Your task to perform on an android device: open a bookmark in the chrome app Image 0: 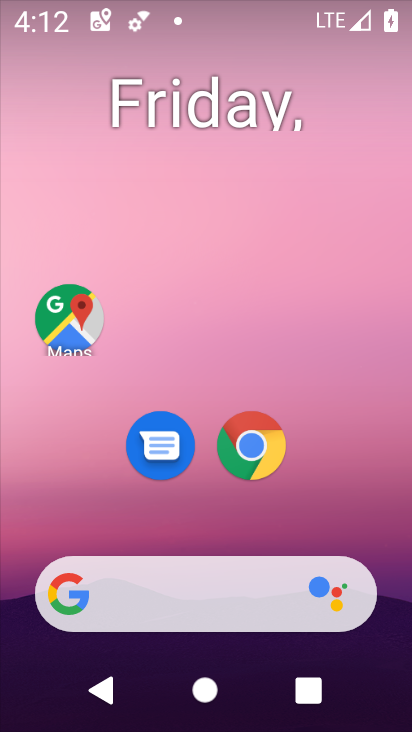
Step 0: drag from (402, 592) to (295, 191)
Your task to perform on an android device: open a bookmark in the chrome app Image 1: 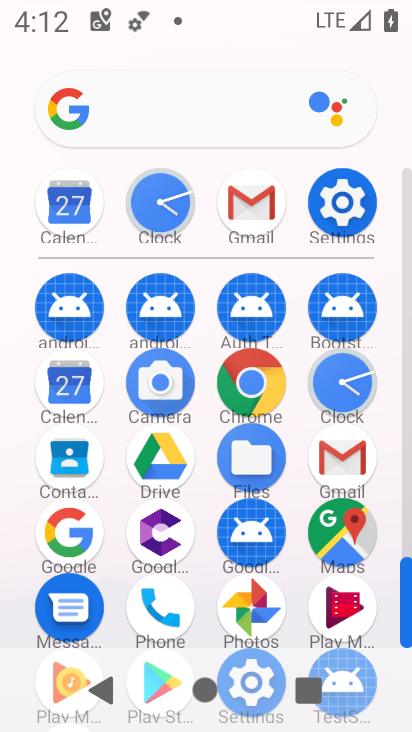
Step 1: click (228, 381)
Your task to perform on an android device: open a bookmark in the chrome app Image 2: 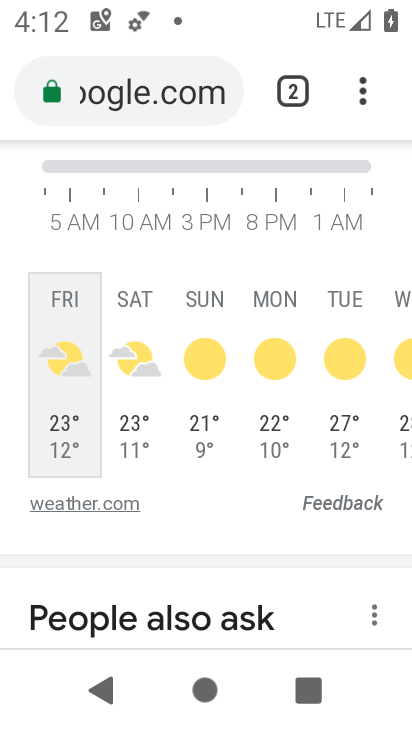
Step 2: click (361, 85)
Your task to perform on an android device: open a bookmark in the chrome app Image 3: 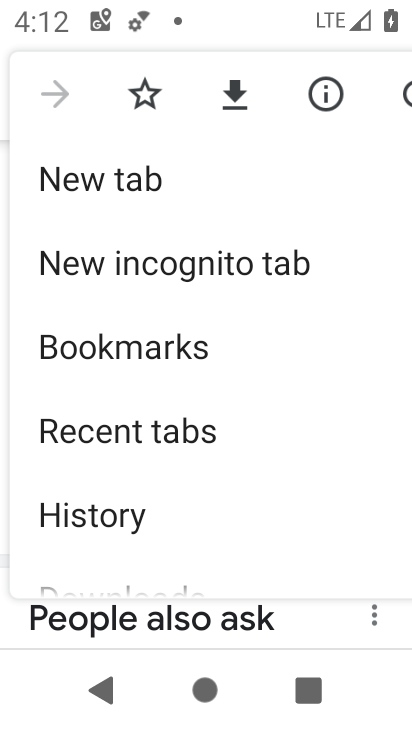
Step 3: click (161, 337)
Your task to perform on an android device: open a bookmark in the chrome app Image 4: 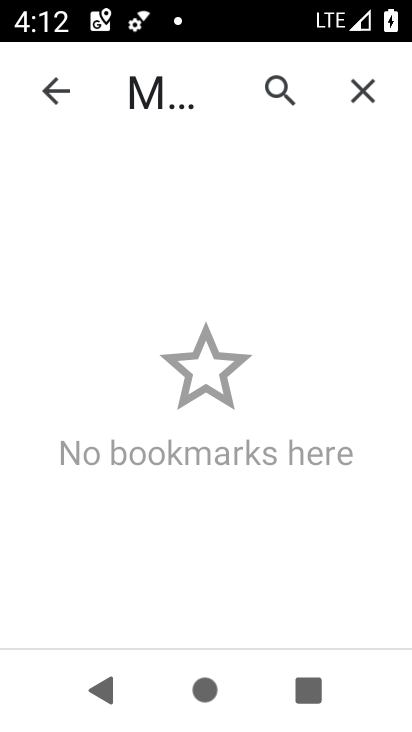
Step 4: task complete